Your task to perform on an android device: Go to Reddit.com Image 0: 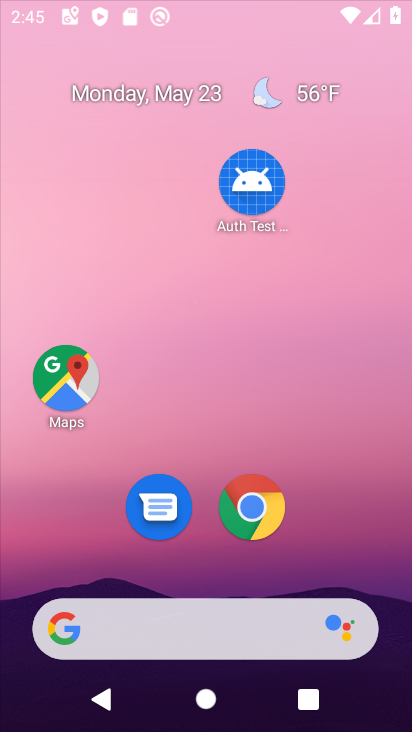
Step 0: drag from (264, 727) to (143, 112)
Your task to perform on an android device: Go to Reddit.com Image 1: 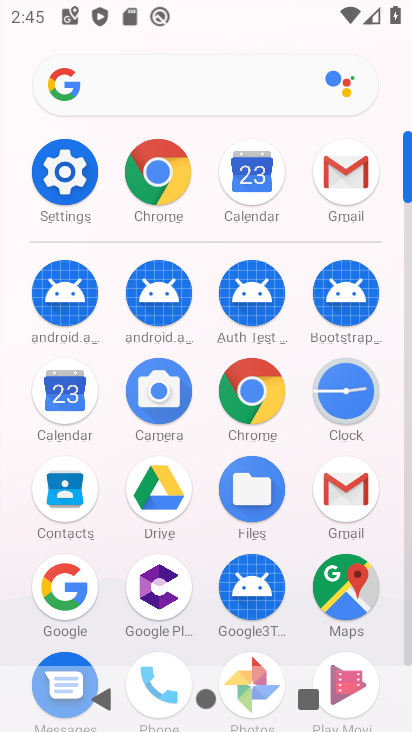
Step 1: click (149, 177)
Your task to perform on an android device: Go to Reddit.com Image 2: 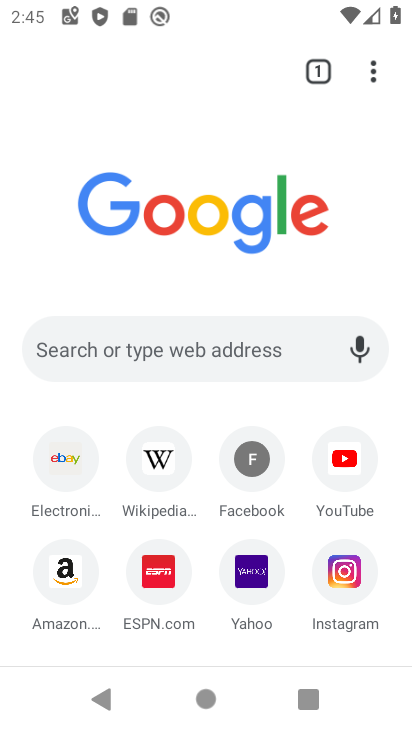
Step 2: click (91, 343)
Your task to perform on an android device: Go to Reddit.com Image 3: 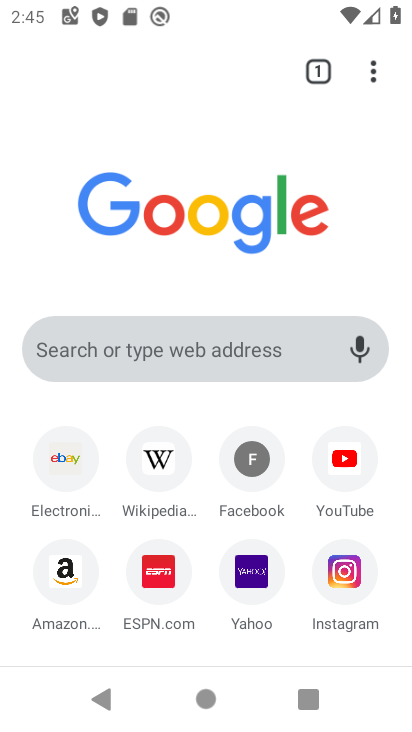
Step 3: click (91, 343)
Your task to perform on an android device: Go to Reddit.com Image 4: 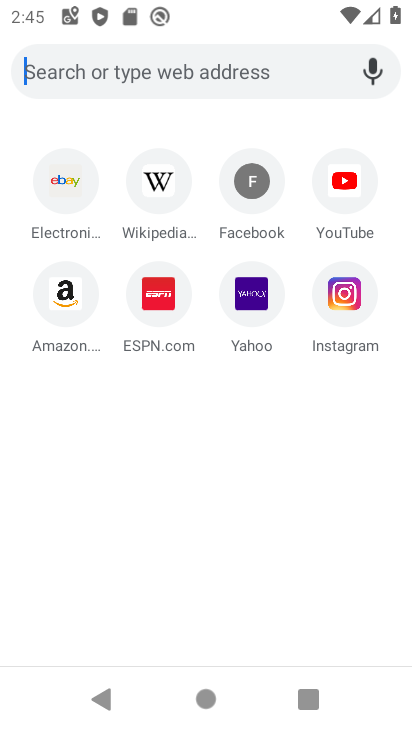
Step 4: click (91, 343)
Your task to perform on an android device: Go to Reddit.com Image 5: 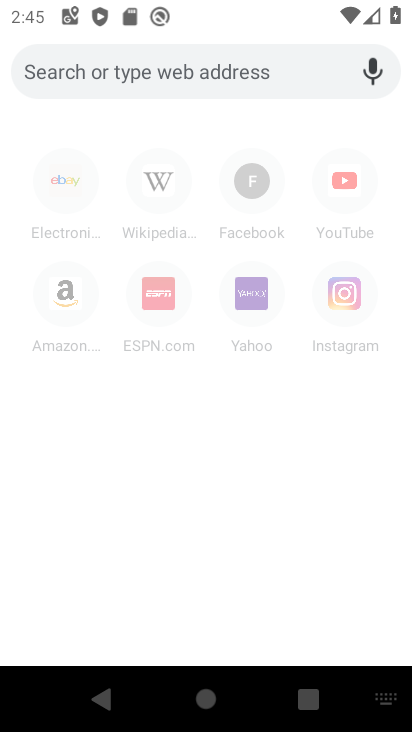
Step 5: click (91, 343)
Your task to perform on an android device: Go to Reddit.com Image 6: 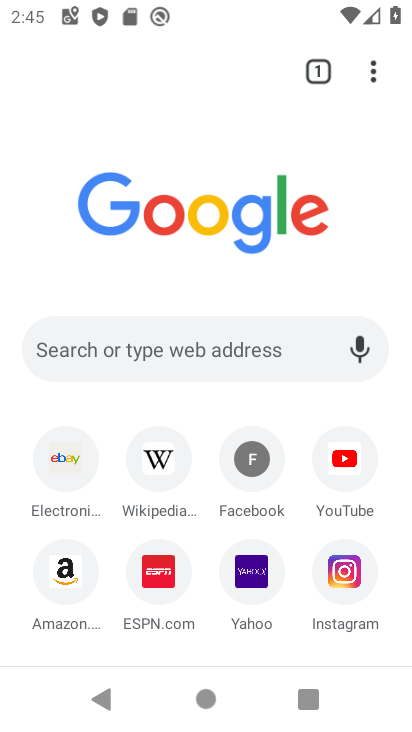
Step 6: click (57, 340)
Your task to perform on an android device: Go to Reddit.com Image 7: 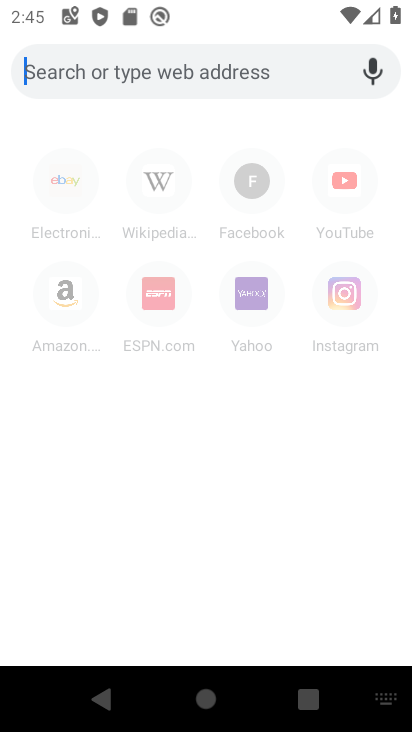
Step 7: type "reddit.com"
Your task to perform on an android device: Go to Reddit.com Image 8: 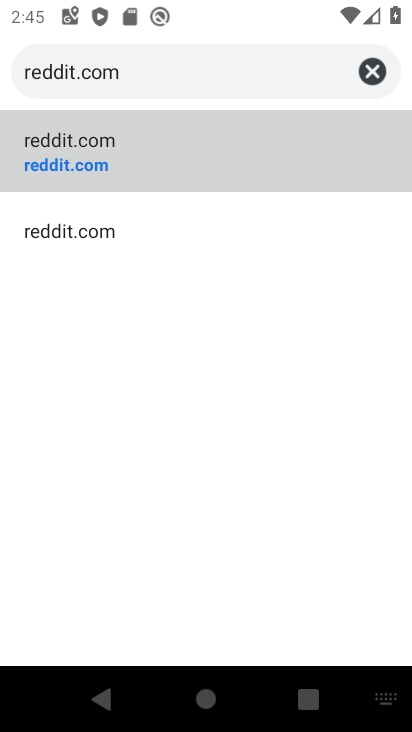
Step 8: click (65, 161)
Your task to perform on an android device: Go to Reddit.com Image 9: 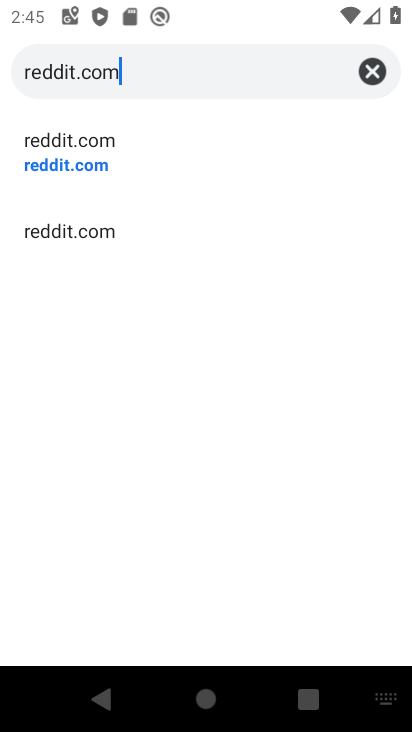
Step 9: click (66, 161)
Your task to perform on an android device: Go to Reddit.com Image 10: 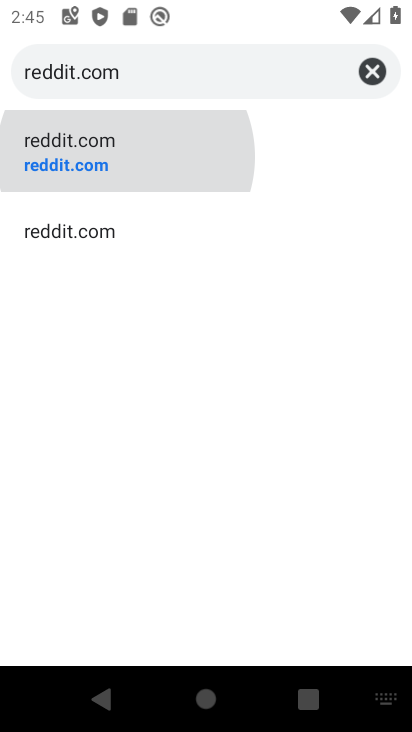
Step 10: click (66, 161)
Your task to perform on an android device: Go to Reddit.com Image 11: 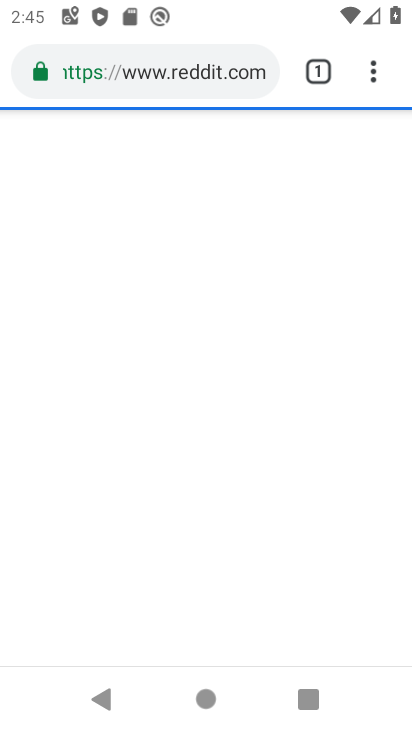
Step 11: task complete